Your task to perform on an android device: add a label to a message in the gmail app Image 0: 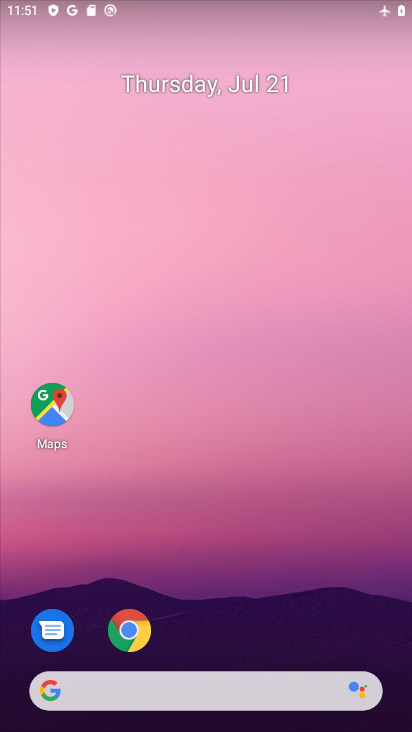
Step 0: drag from (219, 650) to (217, 65)
Your task to perform on an android device: add a label to a message in the gmail app Image 1: 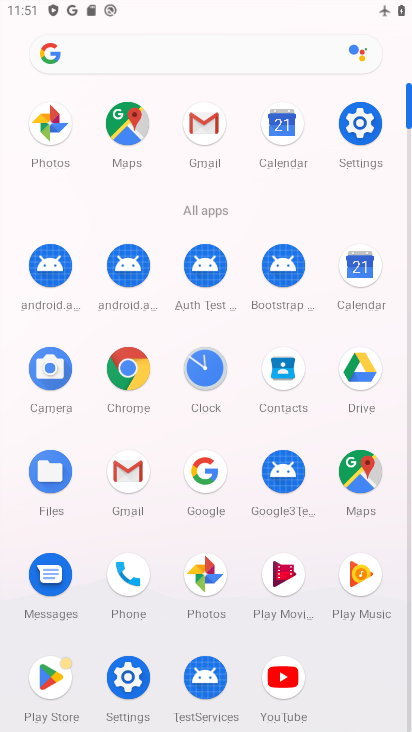
Step 1: click (139, 483)
Your task to perform on an android device: add a label to a message in the gmail app Image 2: 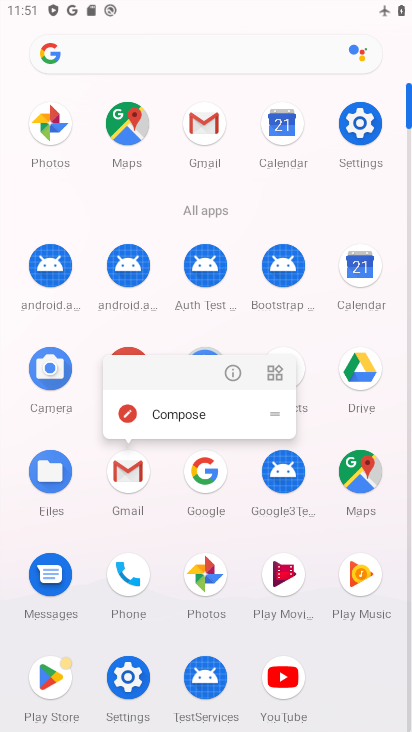
Step 2: click (125, 488)
Your task to perform on an android device: add a label to a message in the gmail app Image 3: 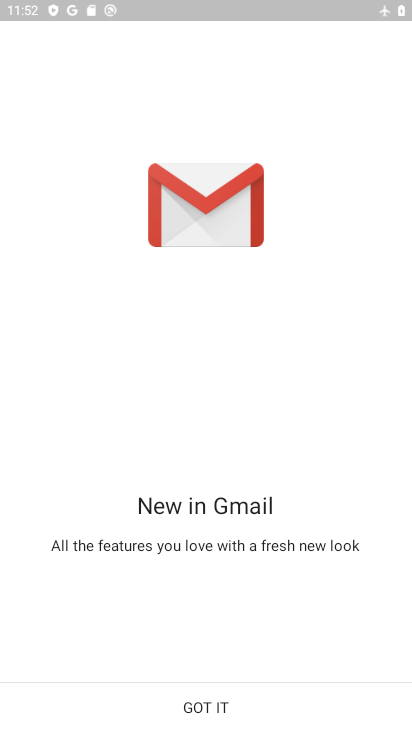
Step 3: click (229, 707)
Your task to perform on an android device: add a label to a message in the gmail app Image 4: 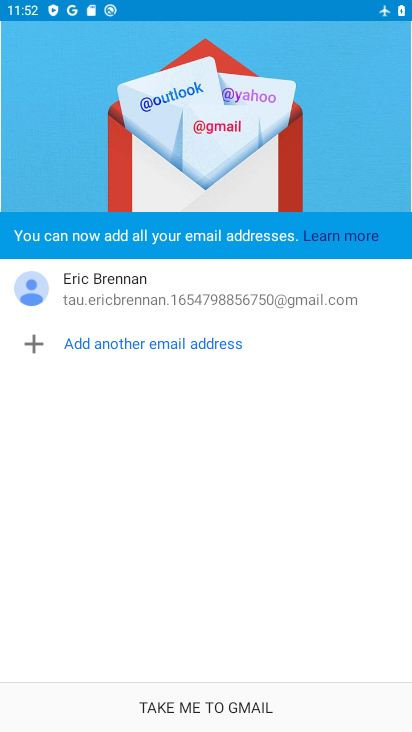
Step 4: click (210, 710)
Your task to perform on an android device: add a label to a message in the gmail app Image 5: 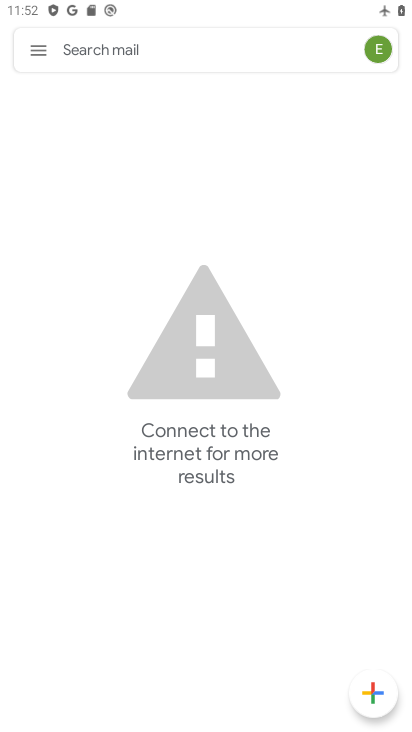
Step 5: task complete